Your task to perform on an android device: Show me productivity apps on the Play Store Image 0: 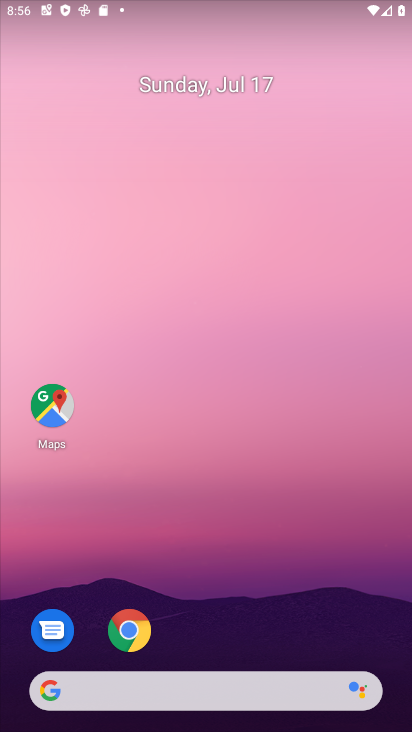
Step 0: drag from (164, 662) to (176, 4)
Your task to perform on an android device: Show me productivity apps on the Play Store Image 1: 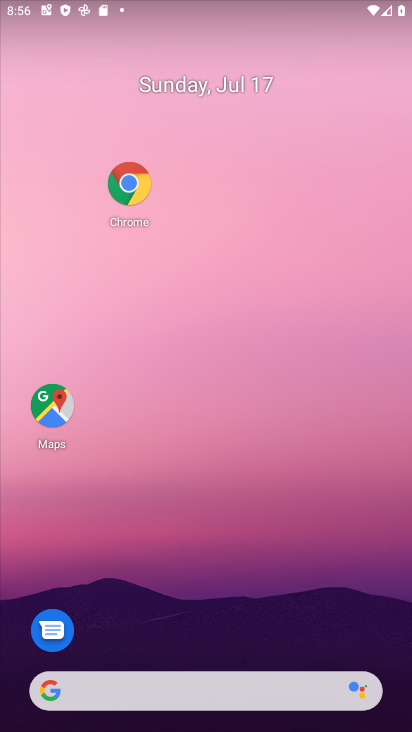
Step 1: drag from (171, 721) to (301, 2)
Your task to perform on an android device: Show me productivity apps on the Play Store Image 2: 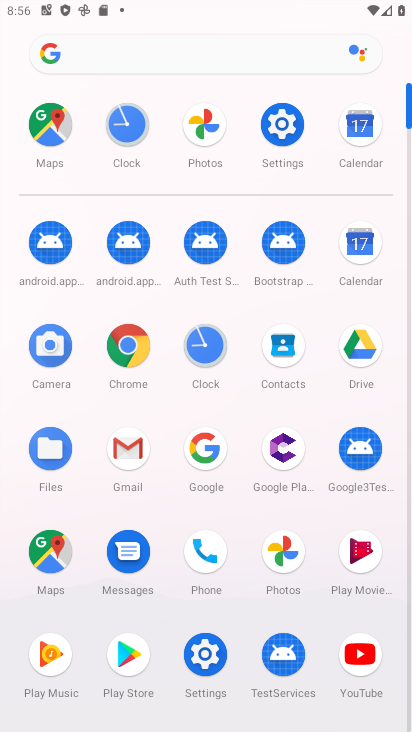
Step 2: click (129, 658)
Your task to perform on an android device: Show me productivity apps on the Play Store Image 3: 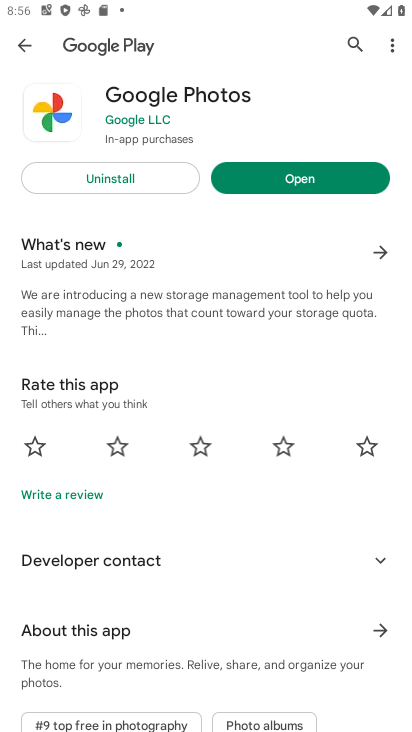
Step 3: click (14, 37)
Your task to perform on an android device: Show me productivity apps on the Play Store Image 4: 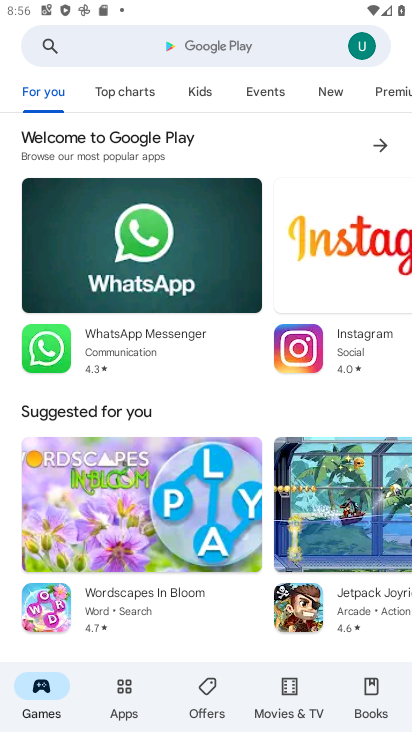
Step 4: drag from (337, 98) to (0, 115)
Your task to perform on an android device: Show me productivity apps on the Play Store Image 5: 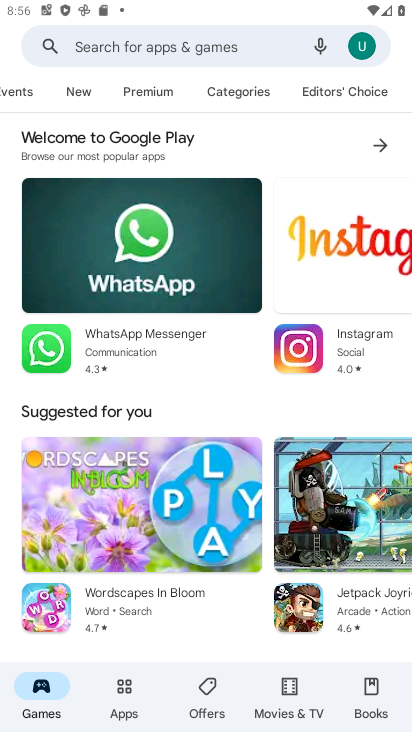
Step 5: drag from (370, 97) to (52, 138)
Your task to perform on an android device: Show me productivity apps on the Play Store Image 6: 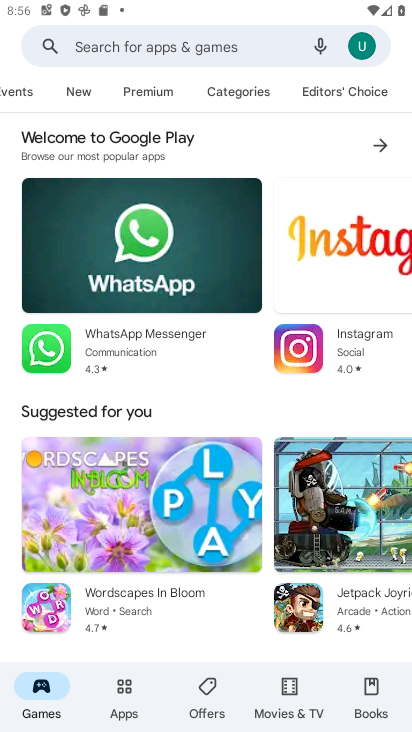
Step 6: drag from (353, 95) to (44, 130)
Your task to perform on an android device: Show me productivity apps on the Play Store Image 7: 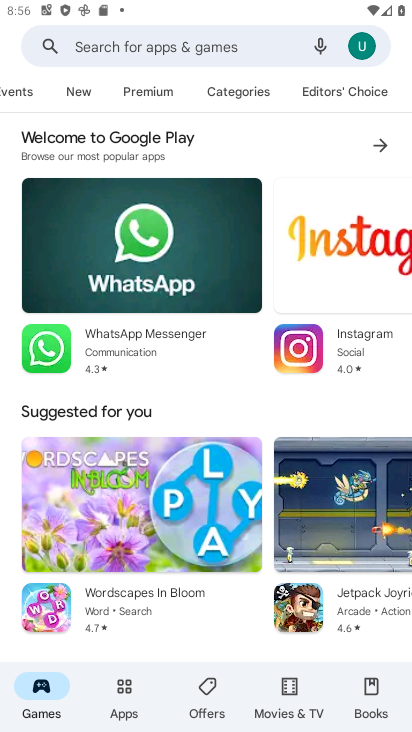
Step 7: click (248, 96)
Your task to perform on an android device: Show me productivity apps on the Play Store Image 8: 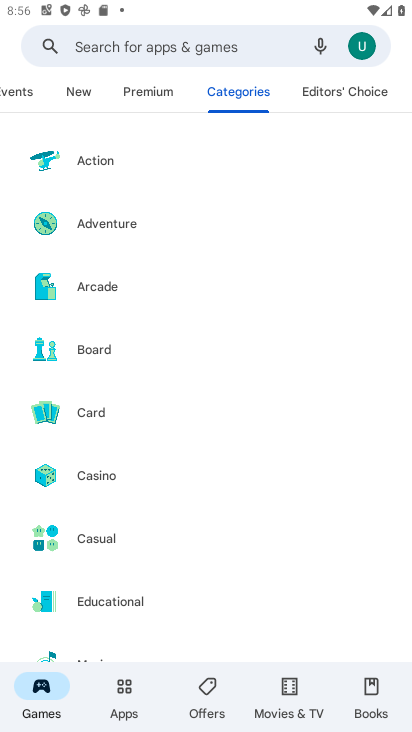
Step 8: click (126, 679)
Your task to perform on an android device: Show me productivity apps on the Play Store Image 9: 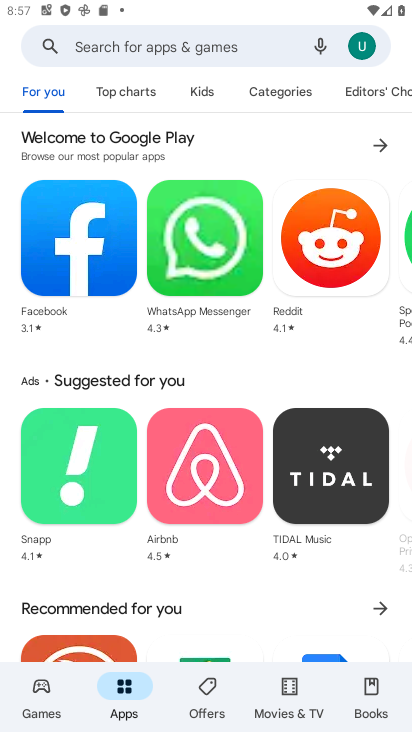
Step 9: click (279, 97)
Your task to perform on an android device: Show me productivity apps on the Play Store Image 10: 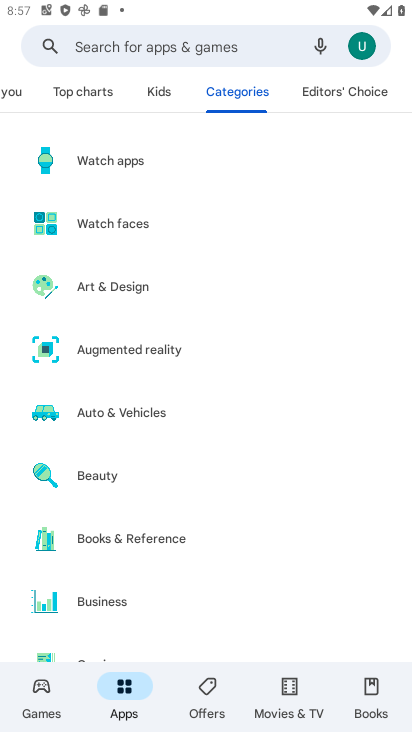
Step 10: drag from (249, 559) to (216, 2)
Your task to perform on an android device: Show me productivity apps on the Play Store Image 11: 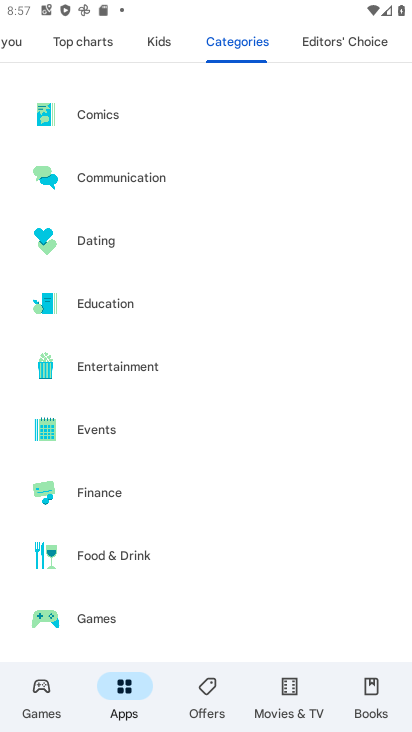
Step 11: drag from (220, 587) to (72, 33)
Your task to perform on an android device: Show me productivity apps on the Play Store Image 12: 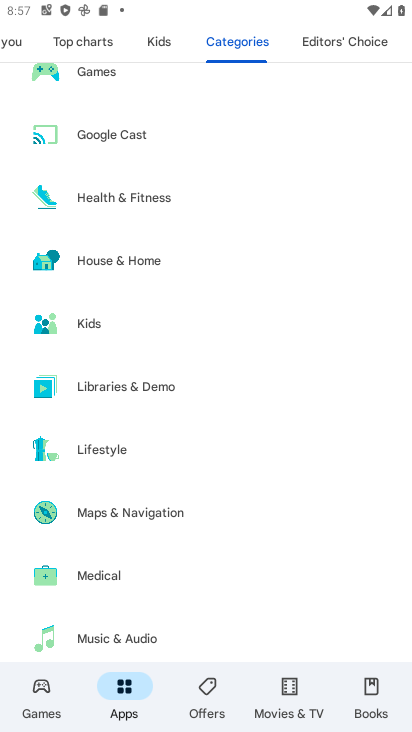
Step 12: drag from (203, 596) to (358, 16)
Your task to perform on an android device: Show me productivity apps on the Play Store Image 13: 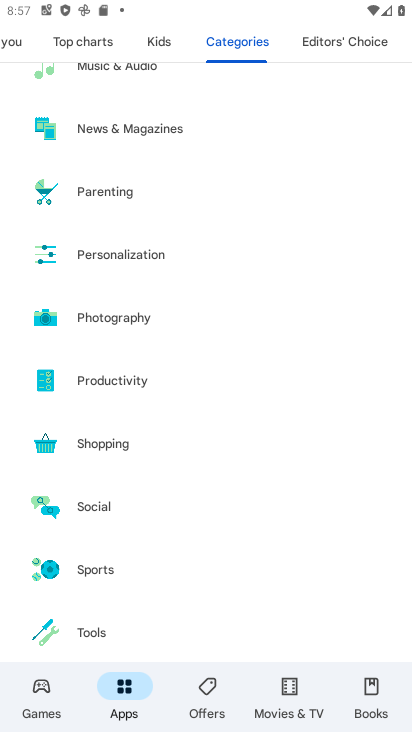
Step 13: click (157, 378)
Your task to perform on an android device: Show me productivity apps on the Play Store Image 14: 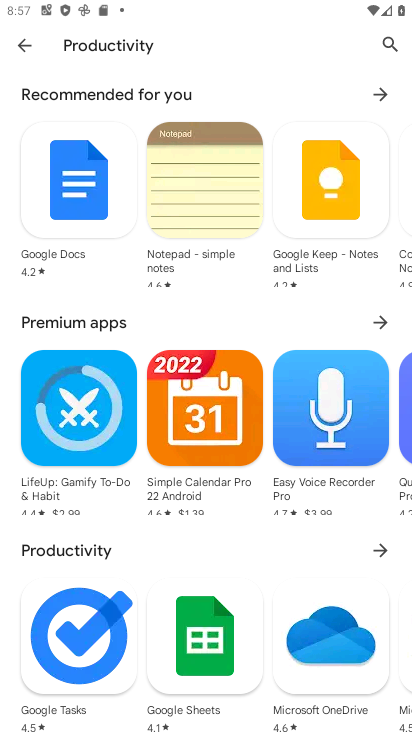
Step 14: task complete